Your task to perform on an android device: turn off priority inbox in the gmail app Image 0: 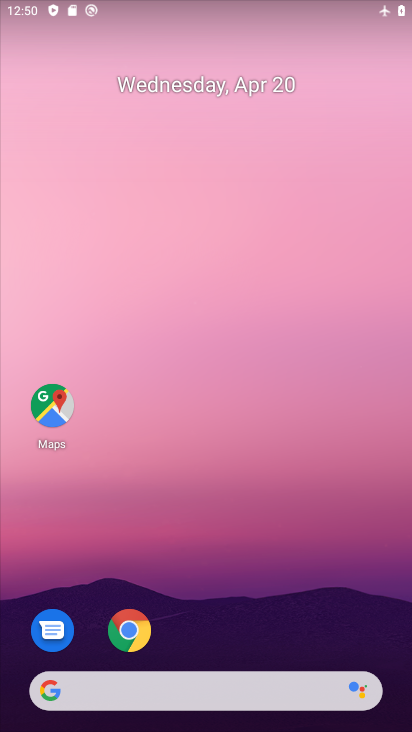
Step 0: drag from (199, 565) to (182, 199)
Your task to perform on an android device: turn off priority inbox in the gmail app Image 1: 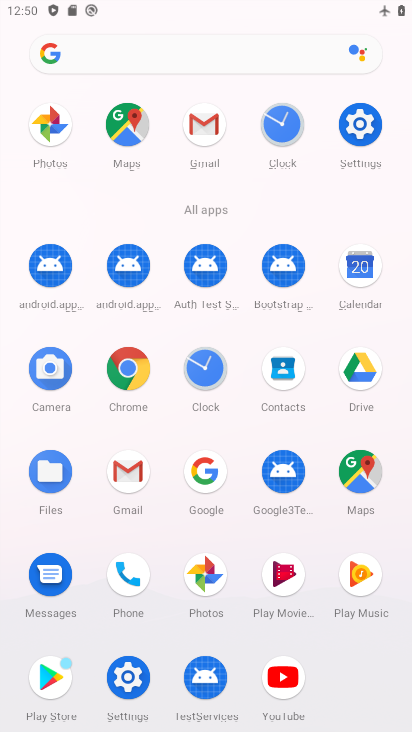
Step 1: click (206, 142)
Your task to perform on an android device: turn off priority inbox in the gmail app Image 2: 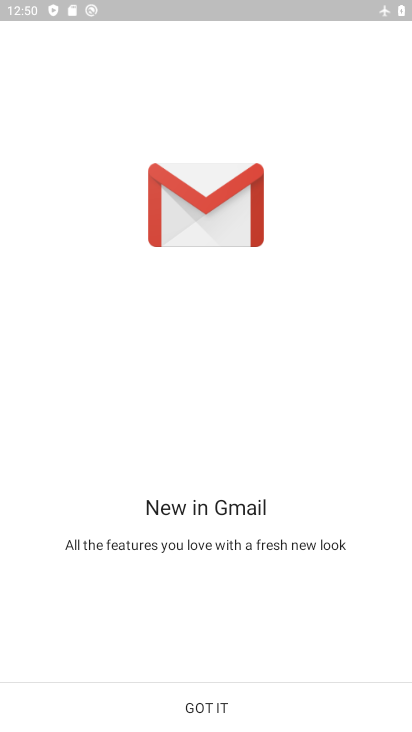
Step 2: click (190, 707)
Your task to perform on an android device: turn off priority inbox in the gmail app Image 3: 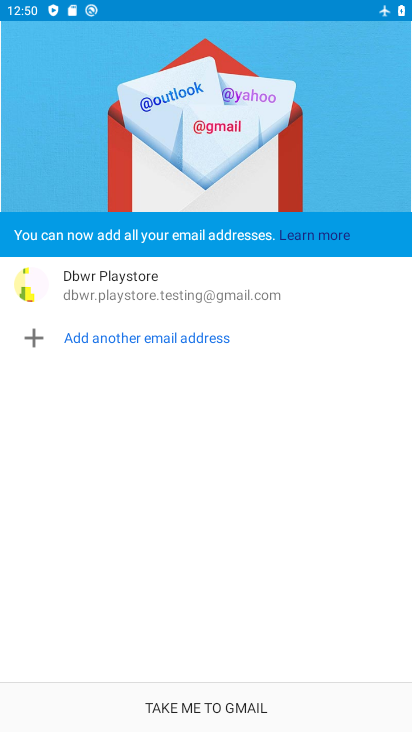
Step 3: click (190, 707)
Your task to perform on an android device: turn off priority inbox in the gmail app Image 4: 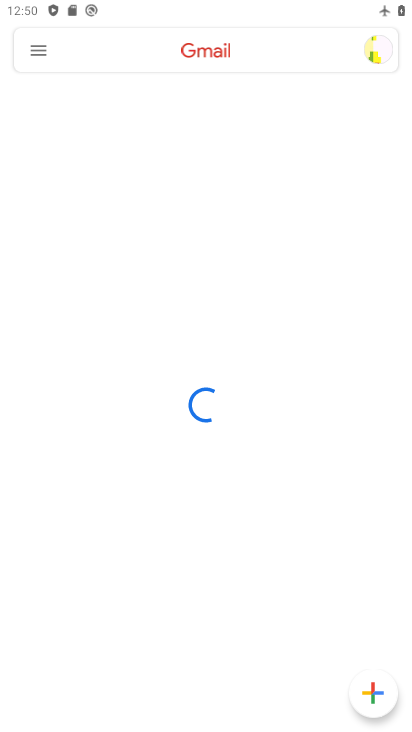
Step 4: click (38, 52)
Your task to perform on an android device: turn off priority inbox in the gmail app Image 5: 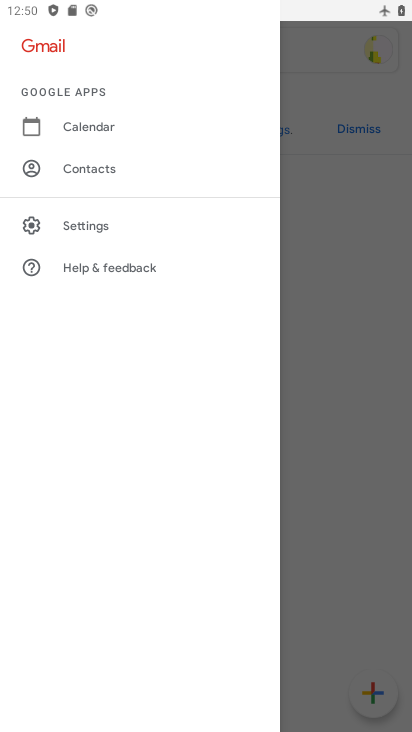
Step 5: click (94, 224)
Your task to perform on an android device: turn off priority inbox in the gmail app Image 6: 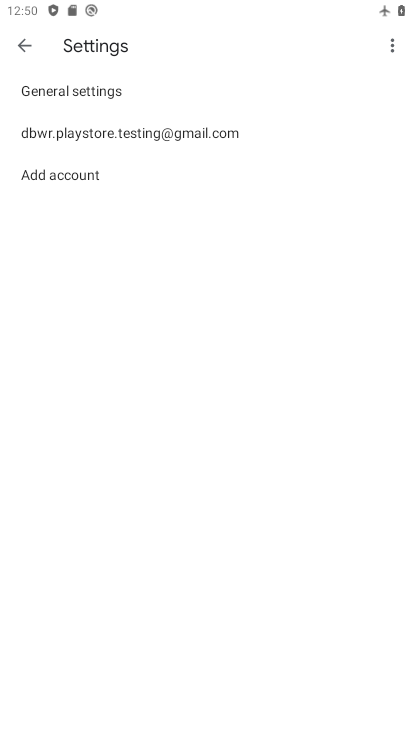
Step 6: click (79, 129)
Your task to perform on an android device: turn off priority inbox in the gmail app Image 7: 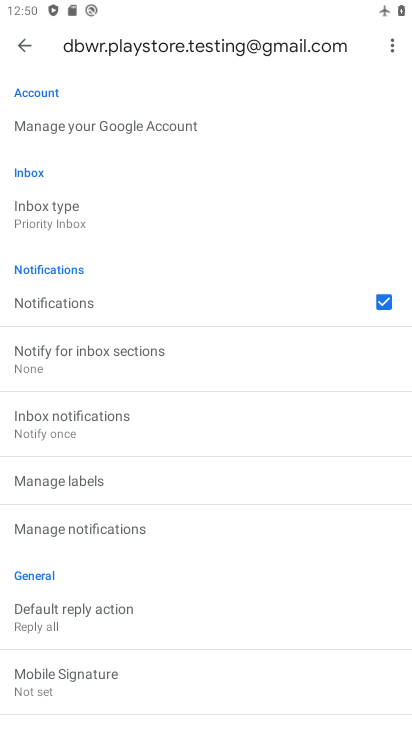
Step 7: click (33, 213)
Your task to perform on an android device: turn off priority inbox in the gmail app Image 8: 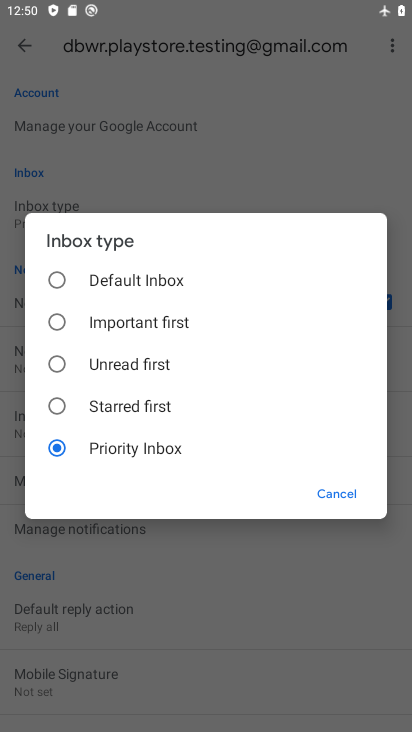
Step 8: click (123, 280)
Your task to perform on an android device: turn off priority inbox in the gmail app Image 9: 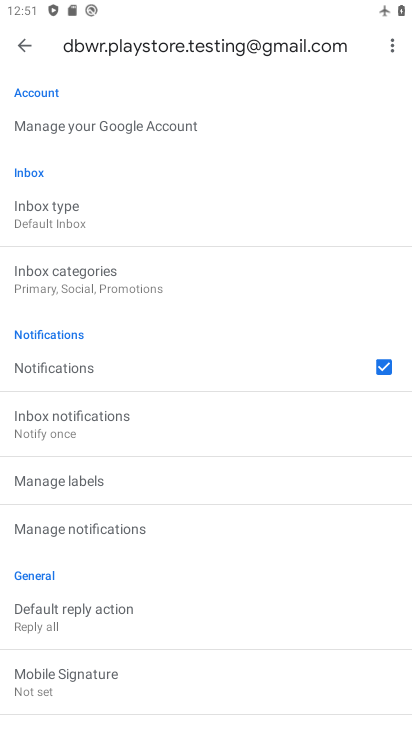
Step 9: task complete